Your task to perform on an android device: Add "logitech g910" to the cart on target, then select checkout. Image 0: 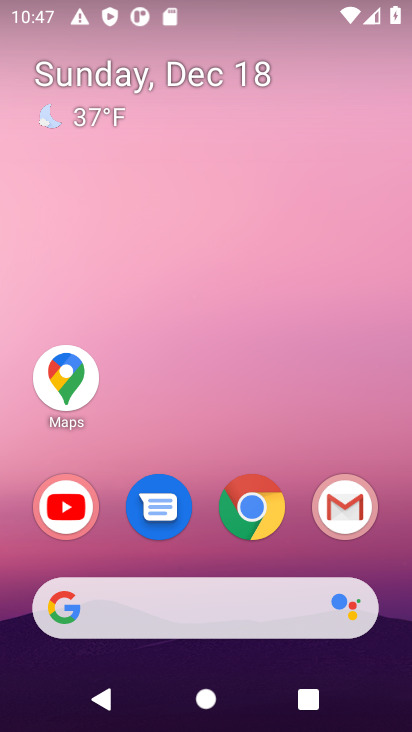
Step 0: click (260, 503)
Your task to perform on an android device: Add "logitech g910" to the cart on target, then select checkout. Image 1: 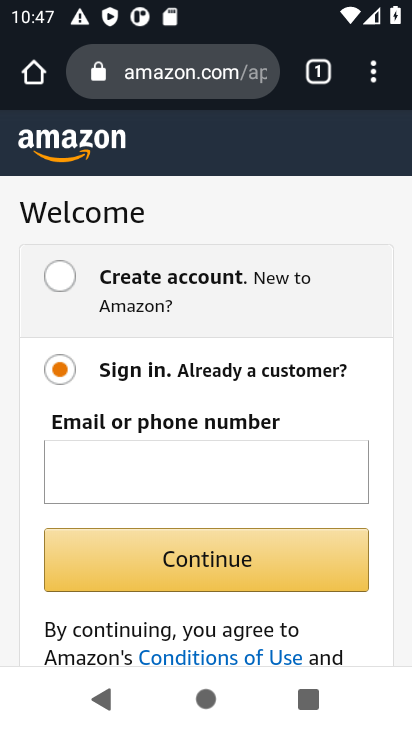
Step 1: click (147, 70)
Your task to perform on an android device: Add "logitech g910" to the cart on target, then select checkout. Image 2: 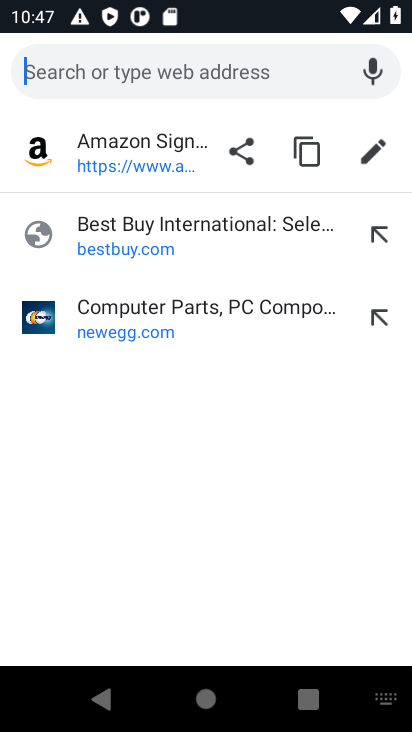
Step 2: type "target.com"
Your task to perform on an android device: Add "logitech g910" to the cart on target, then select checkout. Image 3: 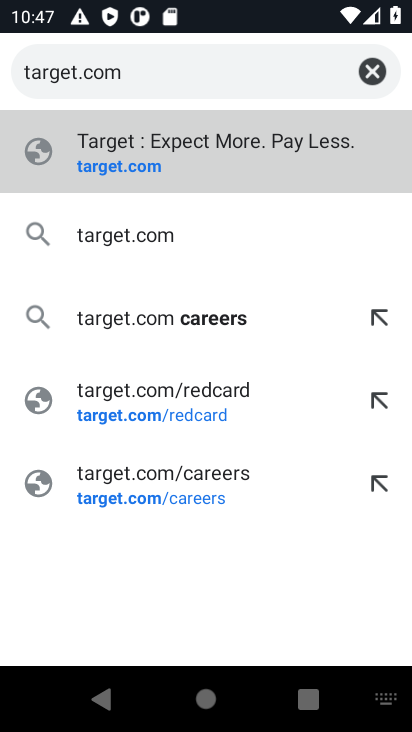
Step 3: click (109, 168)
Your task to perform on an android device: Add "logitech g910" to the cart on target, then select checkout. Image 4: 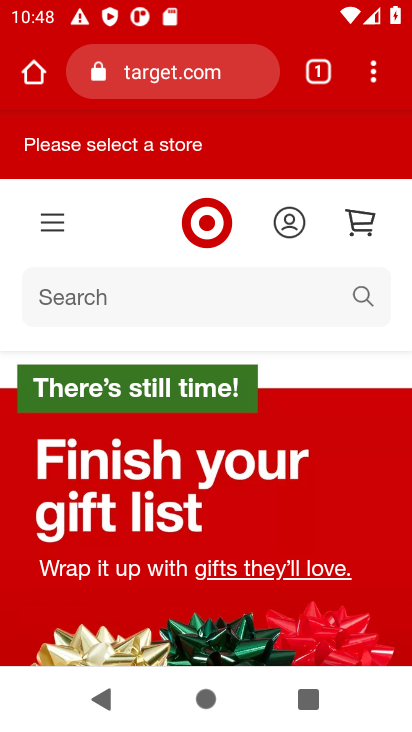
Step 4: click (41, 295)
Your task to perform on an android device: Add "logitech g910" to the cart on target, then select checkout. Image 5: 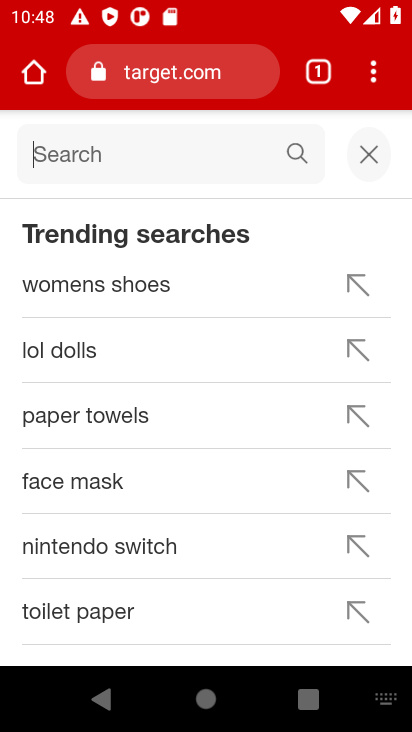
Step 5: type "logitech g910"
Your task to perform on an android device: Add "logitech g910" to the cart on target, then select checkout. Image 6: 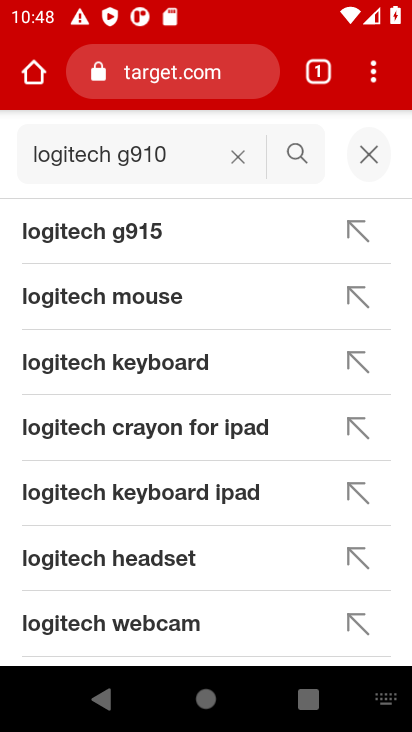
Step 6: click (289, 152)
Your task to perform on an android device: Add "logitech g910" to the cart on target, then select checkout. Image 7: 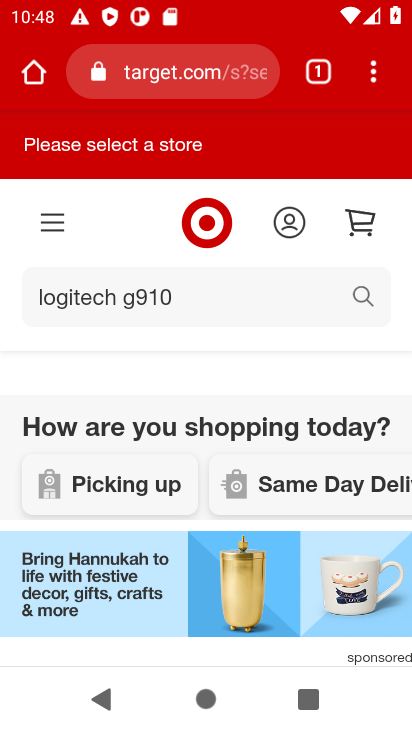
Step 7: drag from (97, 412) to (122, 179)
Your task to perform on an android device: Add "logitech g910" to the cart on target, then select checkout. Image 8: 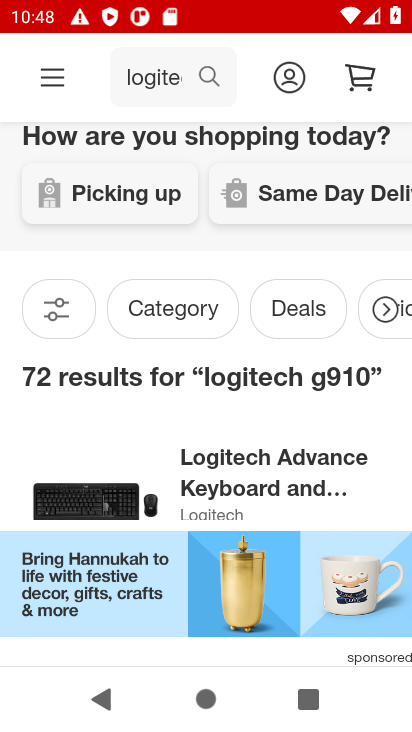
Step 8: drag from (116, 421) to (130, 148)
Your task to perform on an android device: Add "logitech g910" to the cart on target, then select checkout. Image 9: 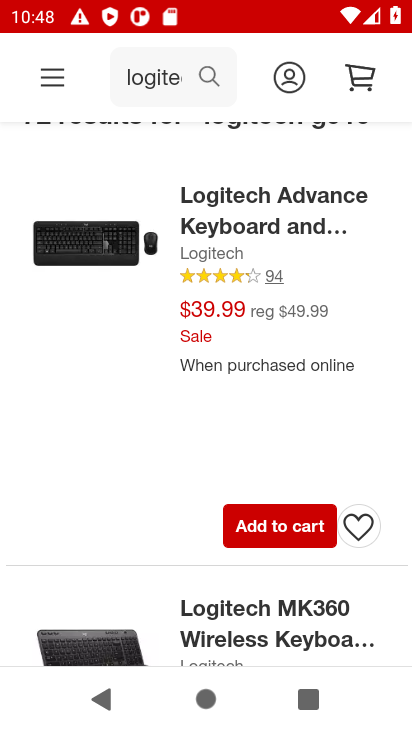
Step 9: drag from (127, 433) to (138, 166)
Your task to perform on an android device: Add "logitech g910" to the cart on target, then select checkout. Image 10: 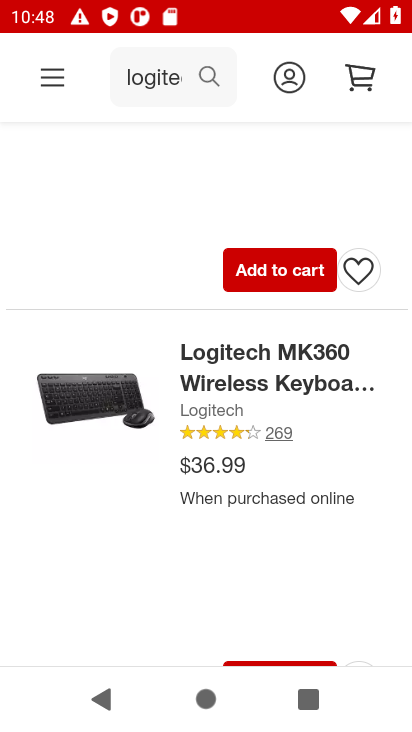
Step 10: drag from (124, 472) to (130, 166)
Your task to perform on an android device: Add "logitech g910" to the cart on target, then select checkout. Image 11: 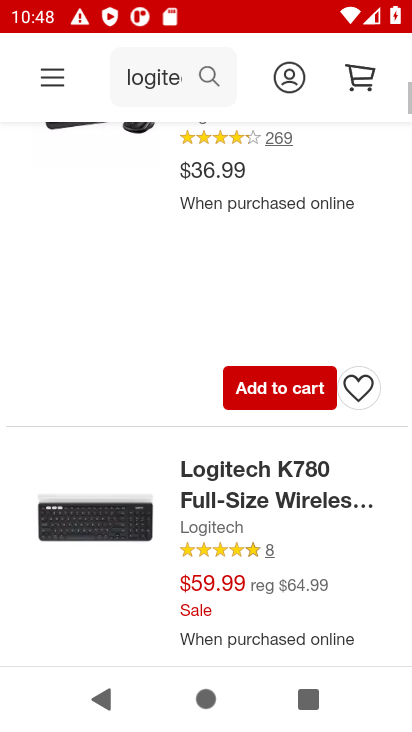
Step 11: drag from (92, 408) to (95, 138)
Your task to perform on an android device: Add "logitech g910" to the cart on target, then select checkout. Image 12: 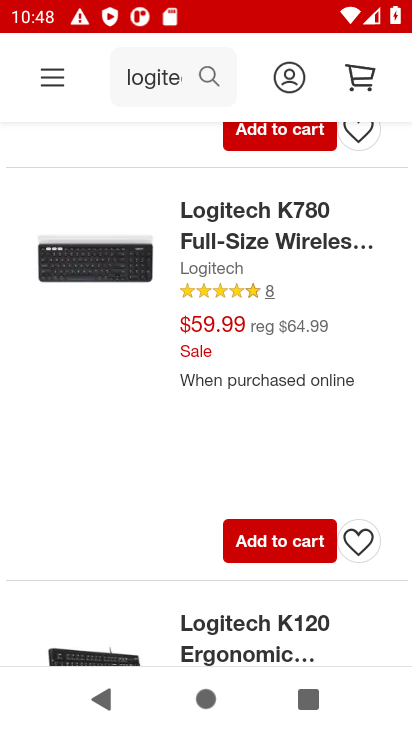
Step 12: drag from (73, 443) to (96, 124)
Your task to perform on an android device: Add "logitech g910" to the cart on target, then select checkout. Image 13: 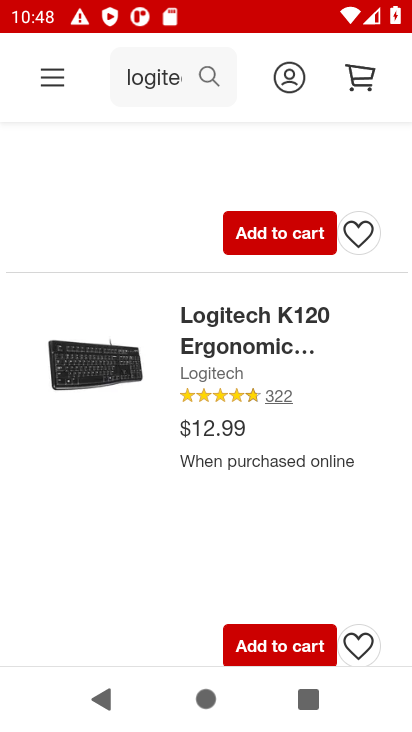
Step 13: drag from (109, 487) to (126, 140)
Your task to perform on an android device: Add "logitech g910" to the cart on target, then select checkout. Image 14: 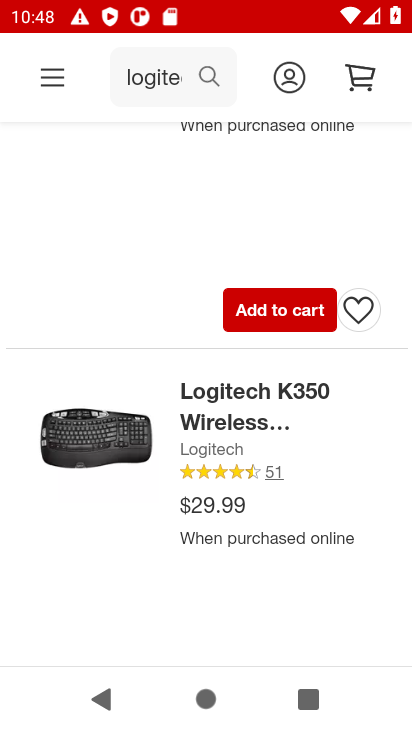
Step 14: drag from (99, 596) to (99, 219)
Your task to perform on an android device: Add "logitech g910" to the cart on target, then select checkout. Image 15: 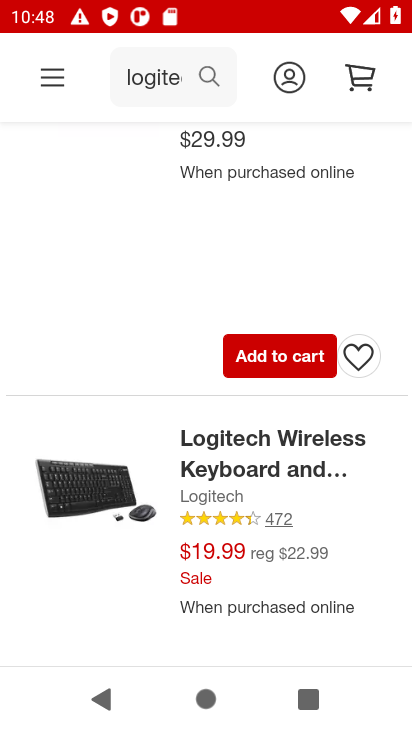
Step 15: drag from (121, 561) to (142, 197)
Your task to perform on an android device: Add "logitech g910" to the cart on target, then select checkout. Image 16: 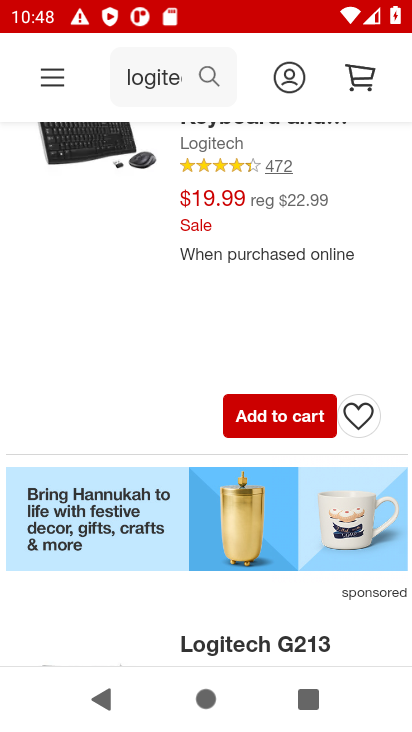
Step 16: drag from (145, 510) to (144, 231)
Your task to perform on an android device: Add "logitech g910" to the cart on target, then select checkout. Image 17: 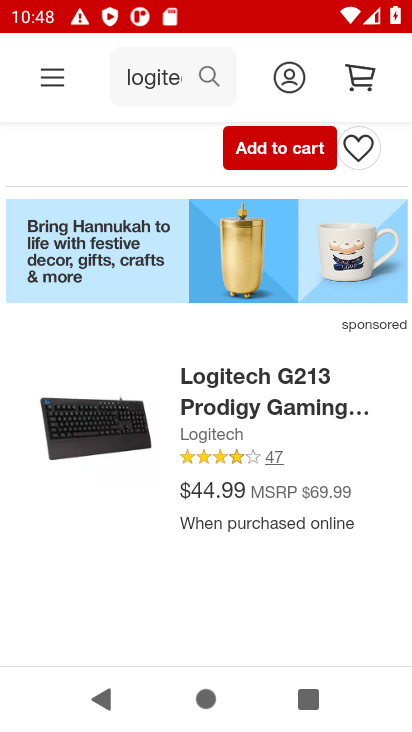
Step 17: drag from (130, 534) to (111, 213)
Your task to perform on an android device: Add "logitech g910" to the cart on target, then select checkout. Image 18: 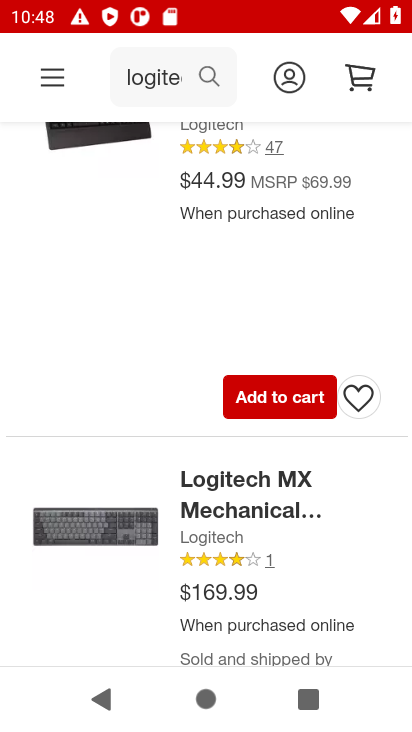
Step 18: click (139, 229)
Your task to perform on an android device: Add "logitech g910" to the cart on target, then select checkout. Image 19: 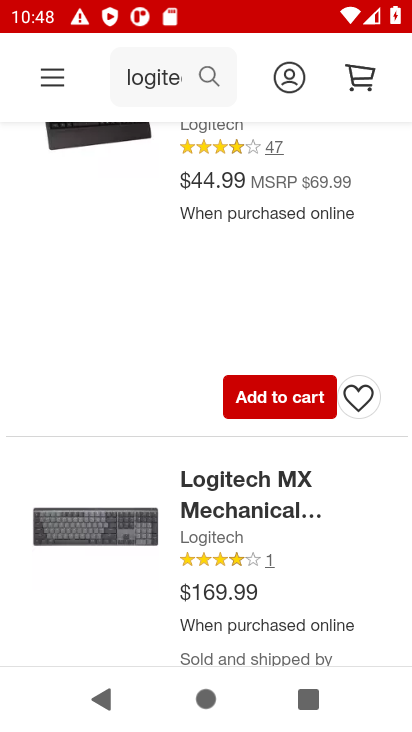
Step 19: task complete